Your task to perform on an android device: turn smart compose on in the gmail app Image 0: 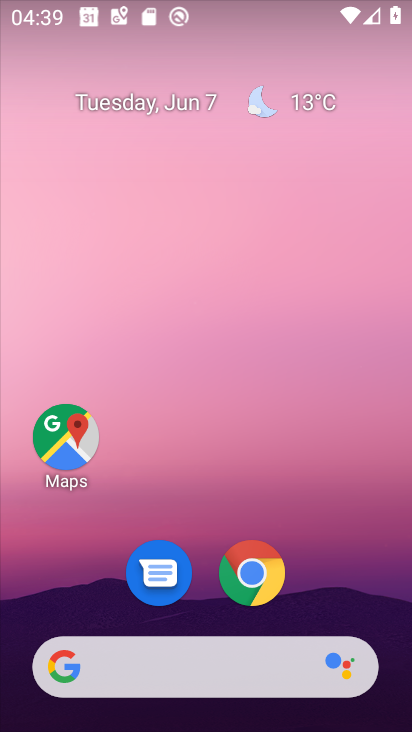
Step 0: press home button
Your task to perform on an android device: turn smart compose on in the gmail app Image 1: 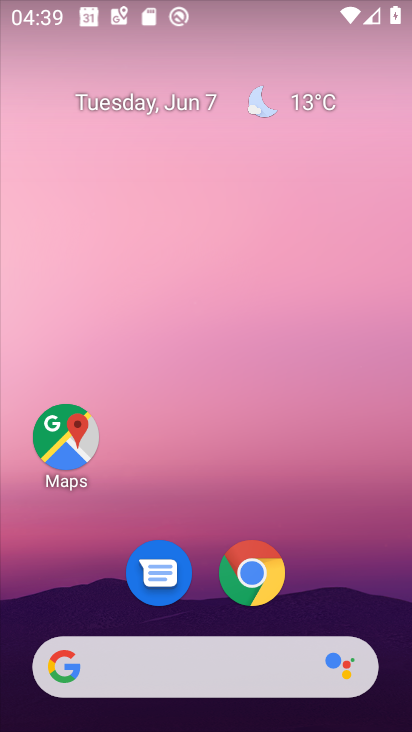
Step 1: drag from (385, 685) to (205, 77)
Your task to perform on an android device: turn smart compose on in the gmail app Image 2: 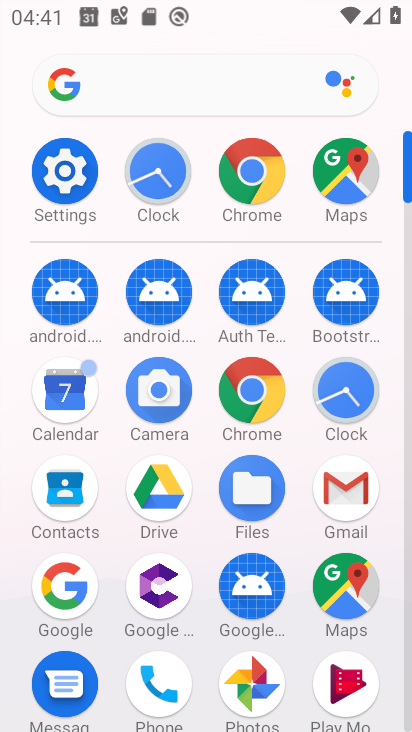
Step 2: click (345, 491)
Your task to perform on an android device: turn smart compose on in the gmail app Image 3: 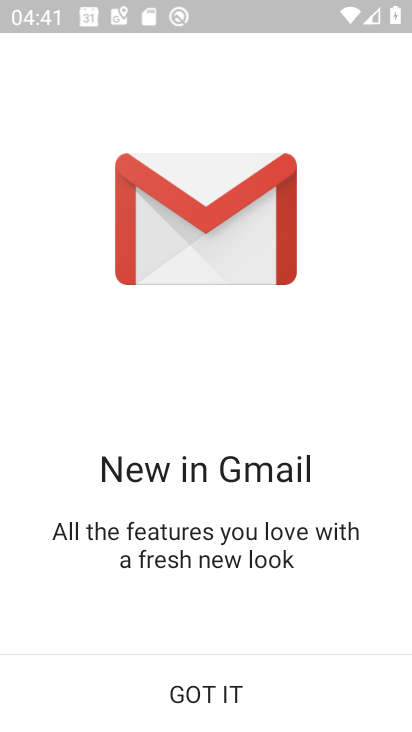
Step 3: click (215, 689)
Your task to perform on an android device: turn smart compose on in the gmail app Image 4: 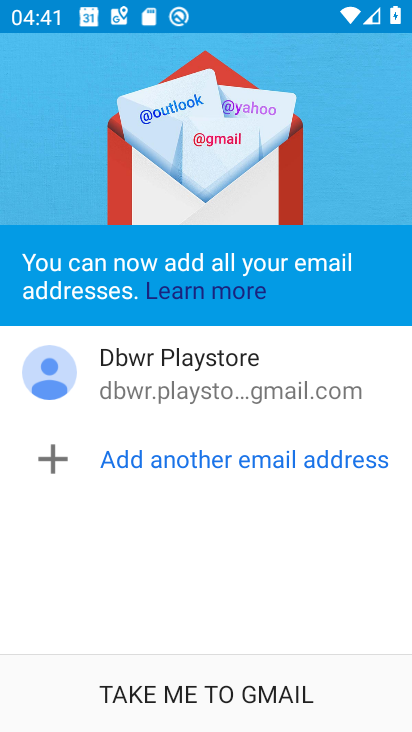
Step 4: click (215, 689)
Your task to perform on an android device: turn smart compose on in the gmail app Image 5: 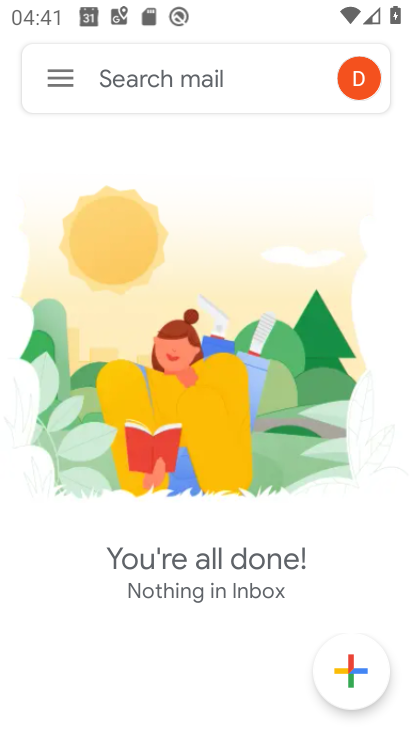
Step 5: click (62, 72)
Your task to perform on an android device: turn smart compose on in the gmail app Image 6: 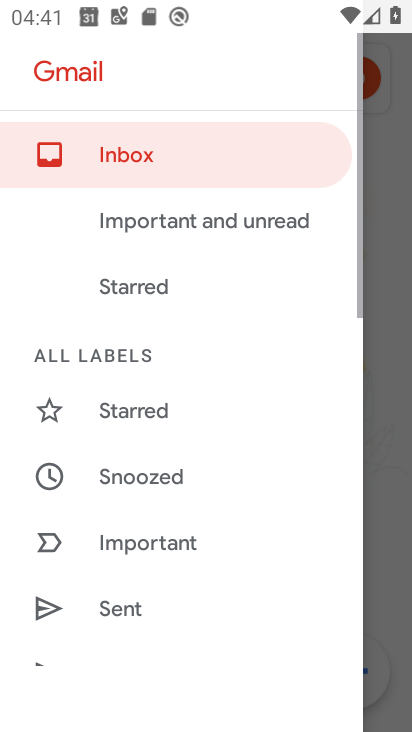
Step 6: drag from (224, 545) to (243, 260)
Your task to perform on an android device: turn smart compose on in the gmail app Image 7: 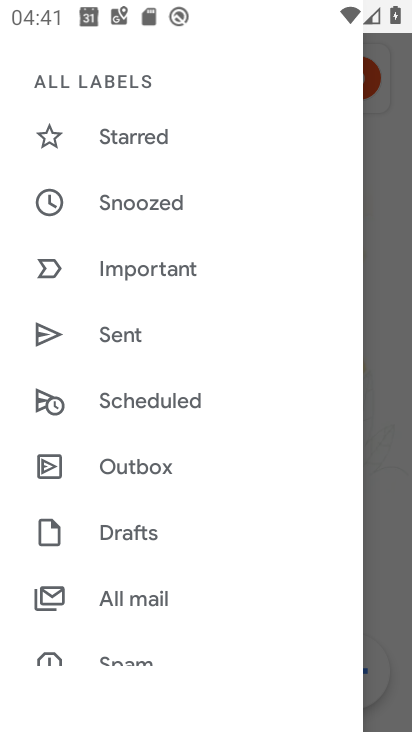
Step 7: drag from (187, 627) to (206, 372)
Your task to perform on an android device: turn smart compose on in the gmail app Image 8: 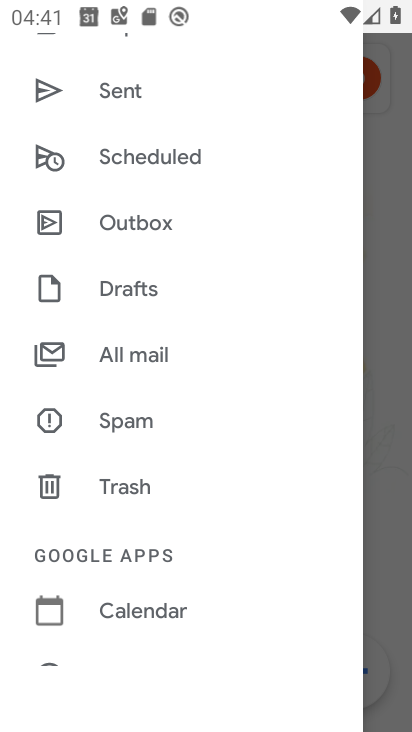
Step 8: drag from (234, 609) to (279, 257)
Your task to perform on an android device: turn smart compose on in the gmail app Image 9: 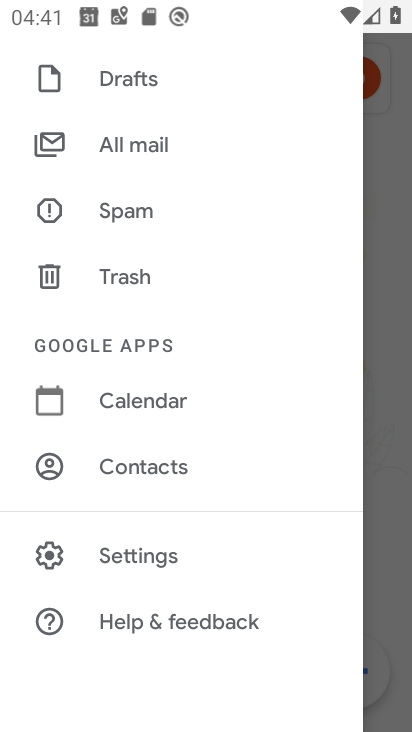
Step 9: drag from (198, 163) to (179, 494)
Your task to perform on an android device: turn smart compose on in the gmail app Image 10: 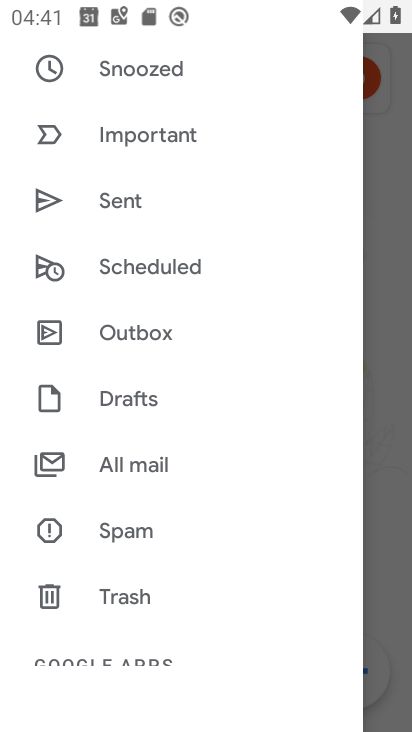
Step 10: drag from (192, 131) to (184, 420)
Your task to perform on an android device: turn smart compose on in the gmail app Image 11: 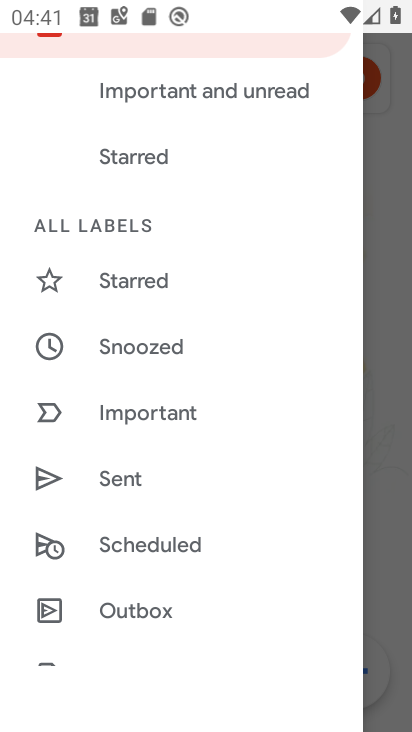
Step 11: drag from (215, 168) to (205, 520)
Your task to perform on an android device: turn smart compose on in the gmail app Image 12: 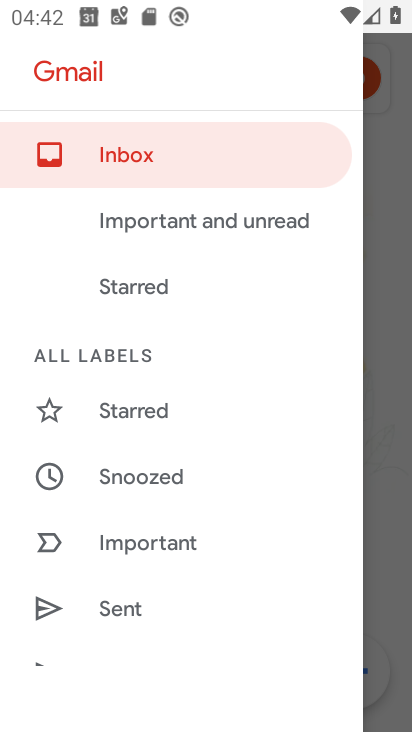
Step 12: drag from (220, 571) to (260, 259)
Your task to perform on an android device: turn smart compose on in the gmail app Image 13: 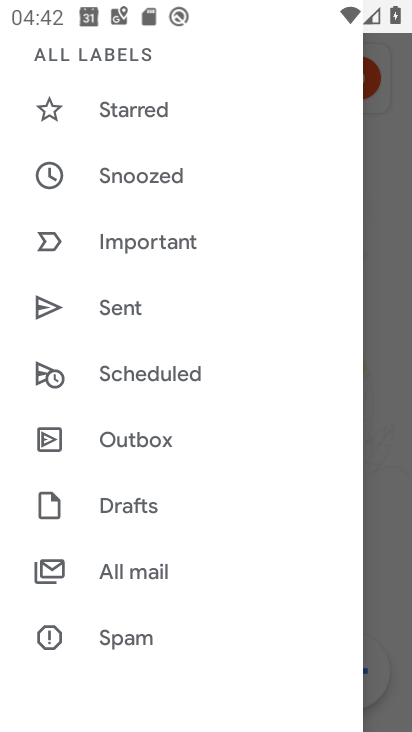
Step 13: drag from (214, 577) to (246, 220)
Your task to perform on an android device: turn smart compose on in the gmail app Image 14: 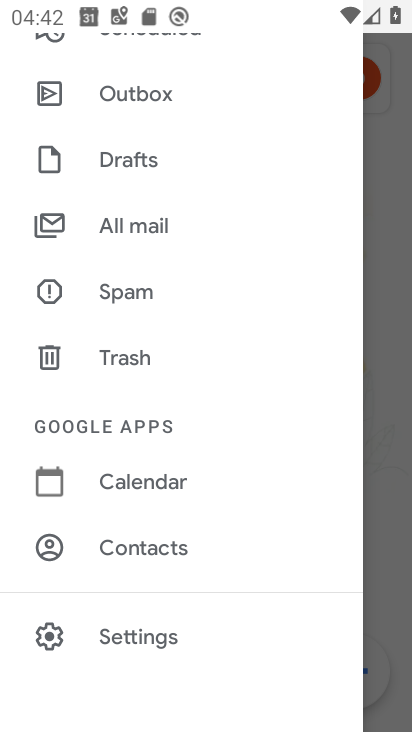
Step 14: click (164, 639)
Your task to perform on an android device: turn smart compose on in the gmail app Image 15: 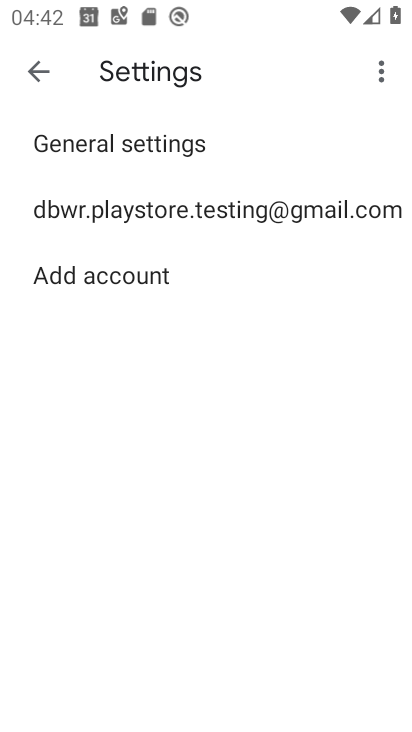
Step 15: click (193, 211)
Your task to perform on an android device: turn smart compose on in the gmail app Image 16: 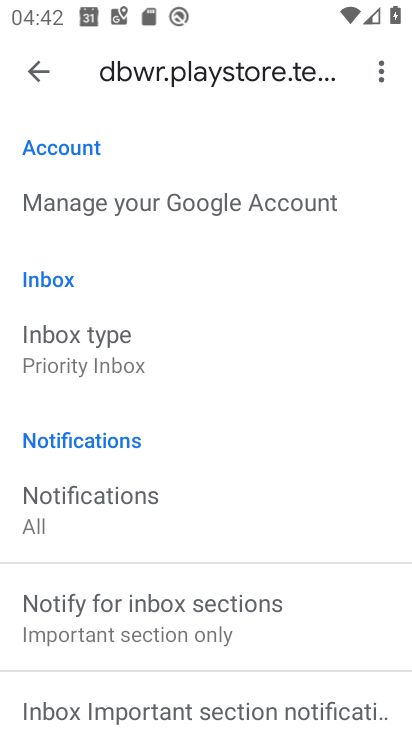
Step 16: task complete